Your task to perform on an android device: open the mobile data screen to see how much data has been used Image 0: 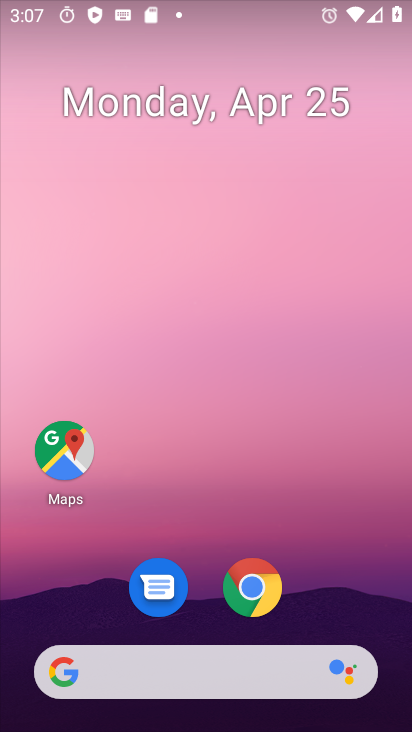
Step 0: drag from (309, 425) to (250, 59)
Your task to perform on an android device: open the mobile data screen to see how much data has been used Image 1: 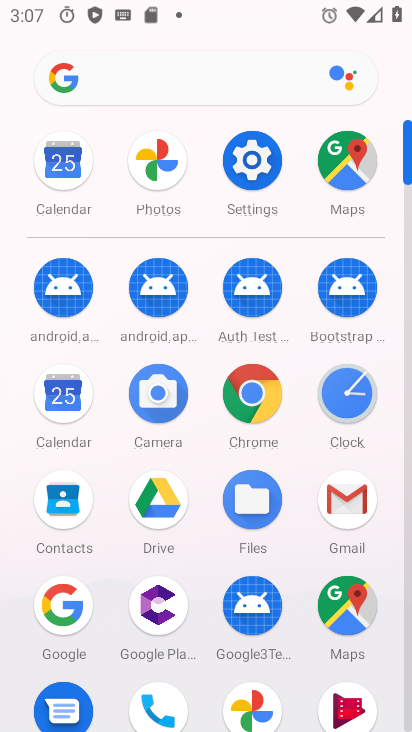
Step 1: drag from (294, 594) to (301, 183)
Your task to perform on an android device: open the mobile data screen to see how much data has been used Image 2: 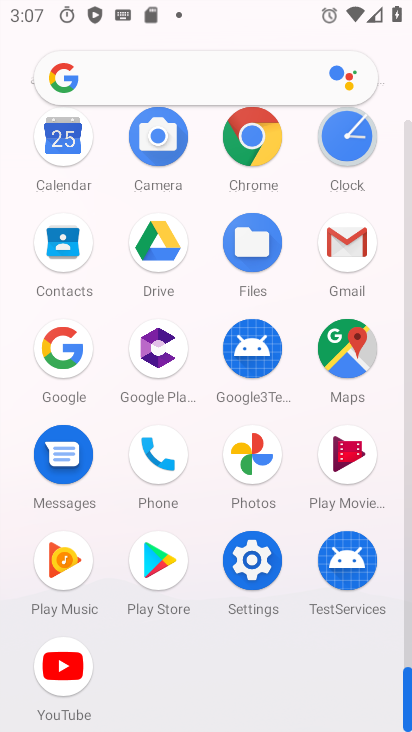
Step 2: click (240, 566)
Your task to perform on an android device: open the mobile data screen to see how much data has been used Image 3: 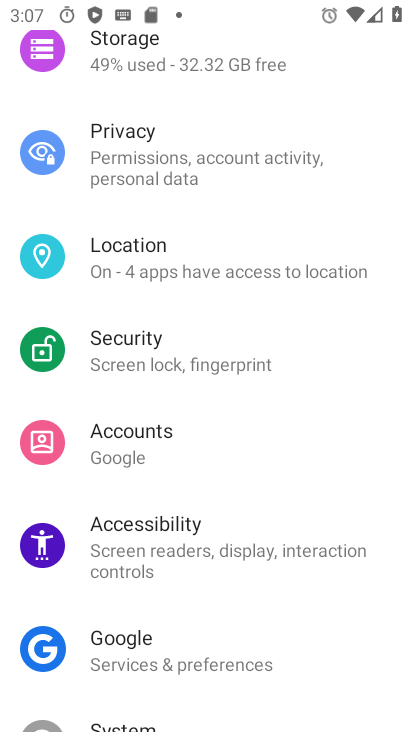
Step 3: drag from (243, 160) to (297, 621)
Your task to perform on an android device: open the mobile data screen to see how much data has been used Image 4: 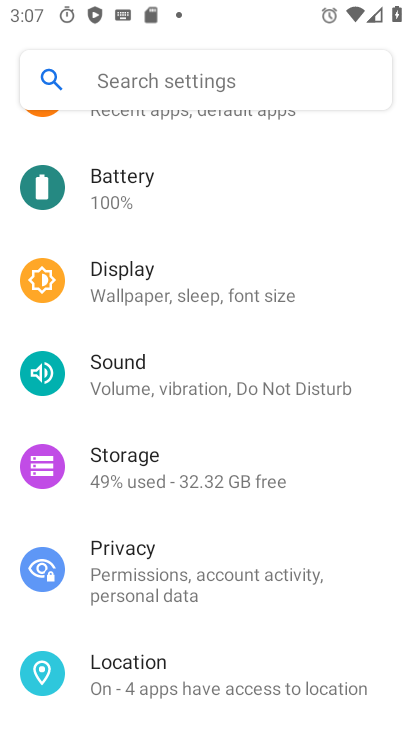
Step 4: drag from (212, 505) to (207, 154)
Your task to perform on an android device: open the mobile data screen to see how much data has been used Image 5: 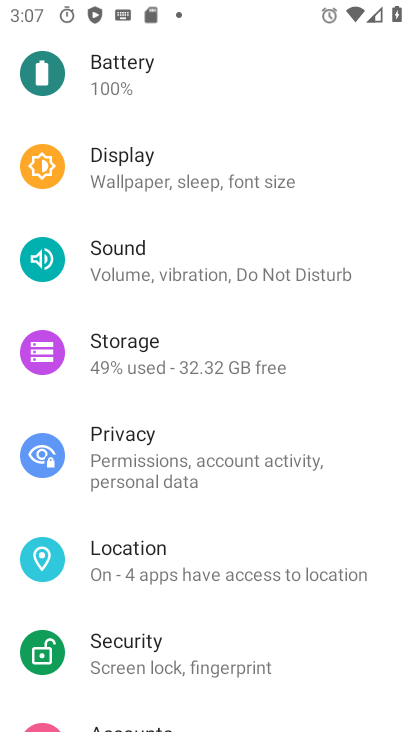
Step 5: drag from (229, 606) to (248, 233)
Your task to perform on an android device: open the mobile data screen to see how much data has been used Image 6: 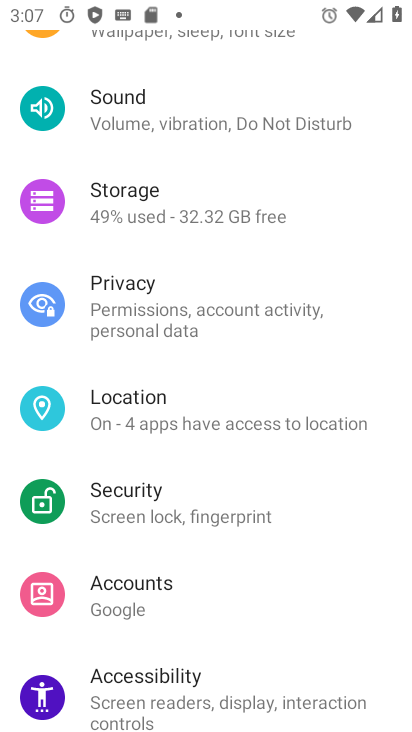
Step 6: drag from (229, 146) to (232, 713)
Your task to perform on an android device: open the mobile data screen to see how much data has been used Image 7: 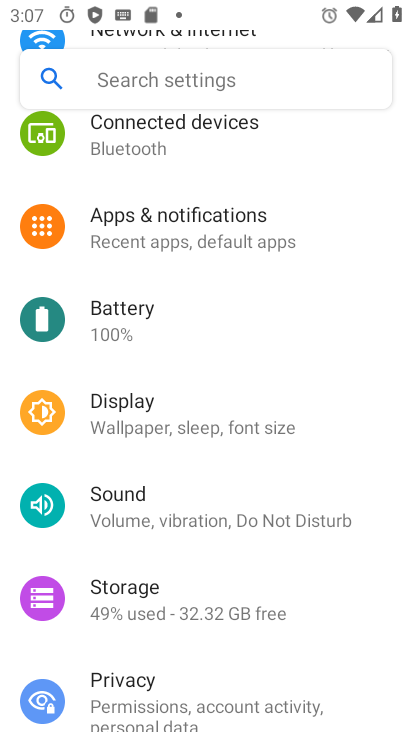
Step 7: drag from (247, 139) to (232, 718)
Your task to perform on an android device: open the mobile data screen to see how much data has been used Image 8: 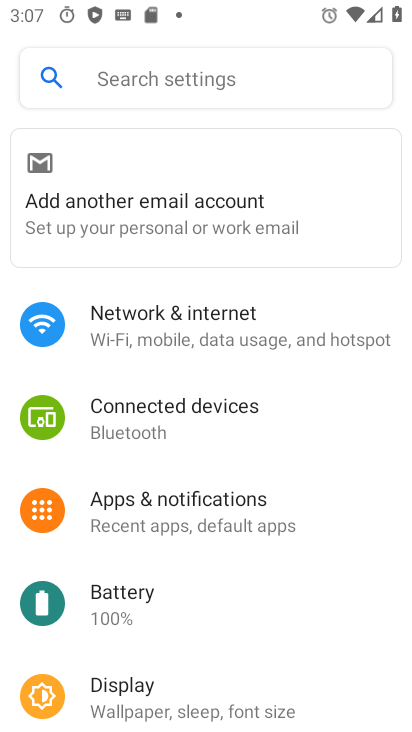
Step 8: click (185, 327)
Your task to perform on an android device: open the mobile data screen to see how much data has been used Image 9: 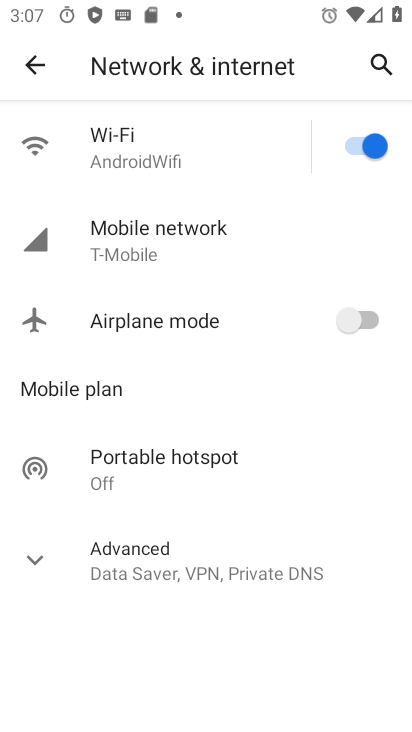
Step 9: click (190, 243)
Your task to perform on an android device: open the mobile data screen to see how much data has been used Image 10: 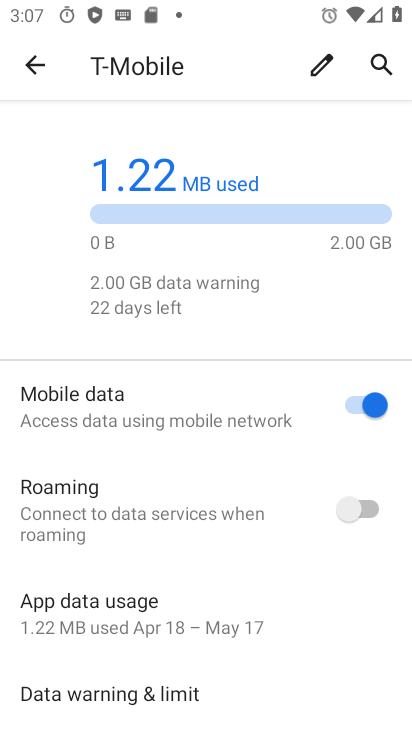
Step 10: task complete